Your task to perform on an android device: open a bookmark in the chrome app Image 0: 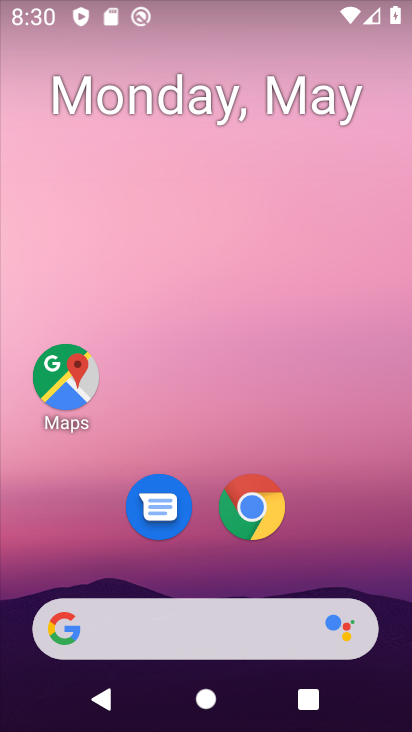
Step 0: click (239, 503)
Your task to perform on an android device: open a bookmark in the chrome app Image 1: 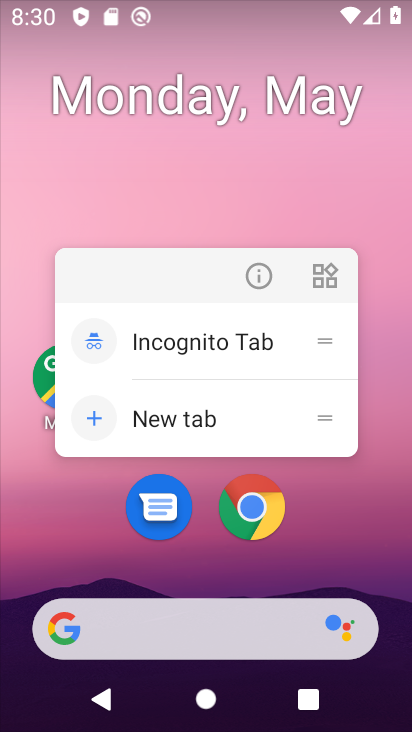
Step 1: click (243, 497)
Your task to perform on an android device: open a bookmark in the chrome app Image 2: 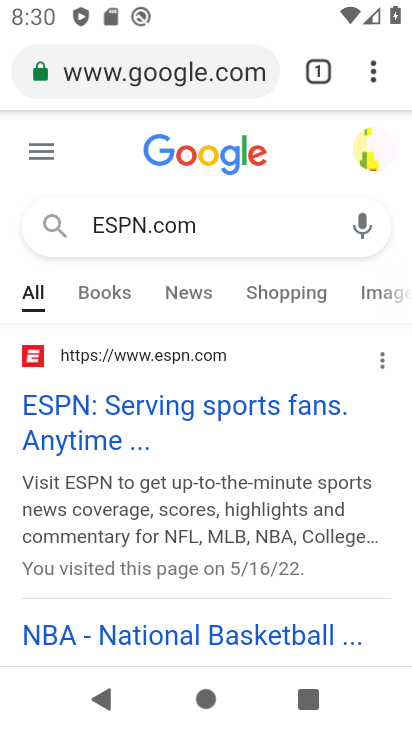
Step 2: click (371, 74)
Your task to perform on an android device: open a bookmark in the chrome app Image 3: 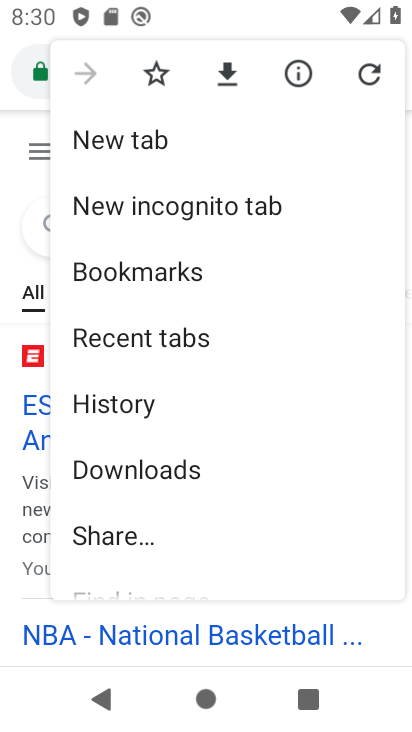
Step 3: click (176, 278)
Your task to perform on an android device: open a bookmark in the chrome app Image 4: 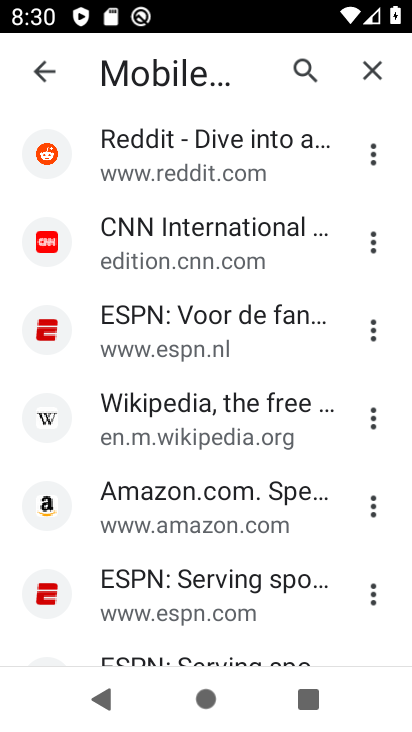
Step 4: click (162, 511)
Your task to perform on an android device: open a bookmark in the chrome app Image 5: 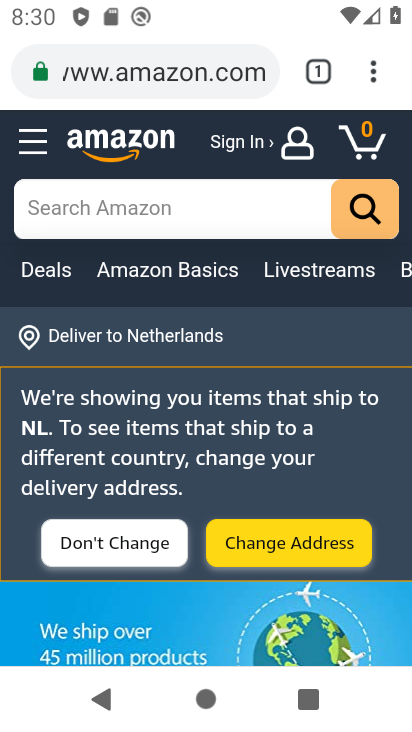
Step 5: task complete